Your task to perform on an android device: open app "ZOOM Cloud Meetings" (install if not already installed) and enter user name: "bauxite@icloud.com" and password: "dim" Image 0: 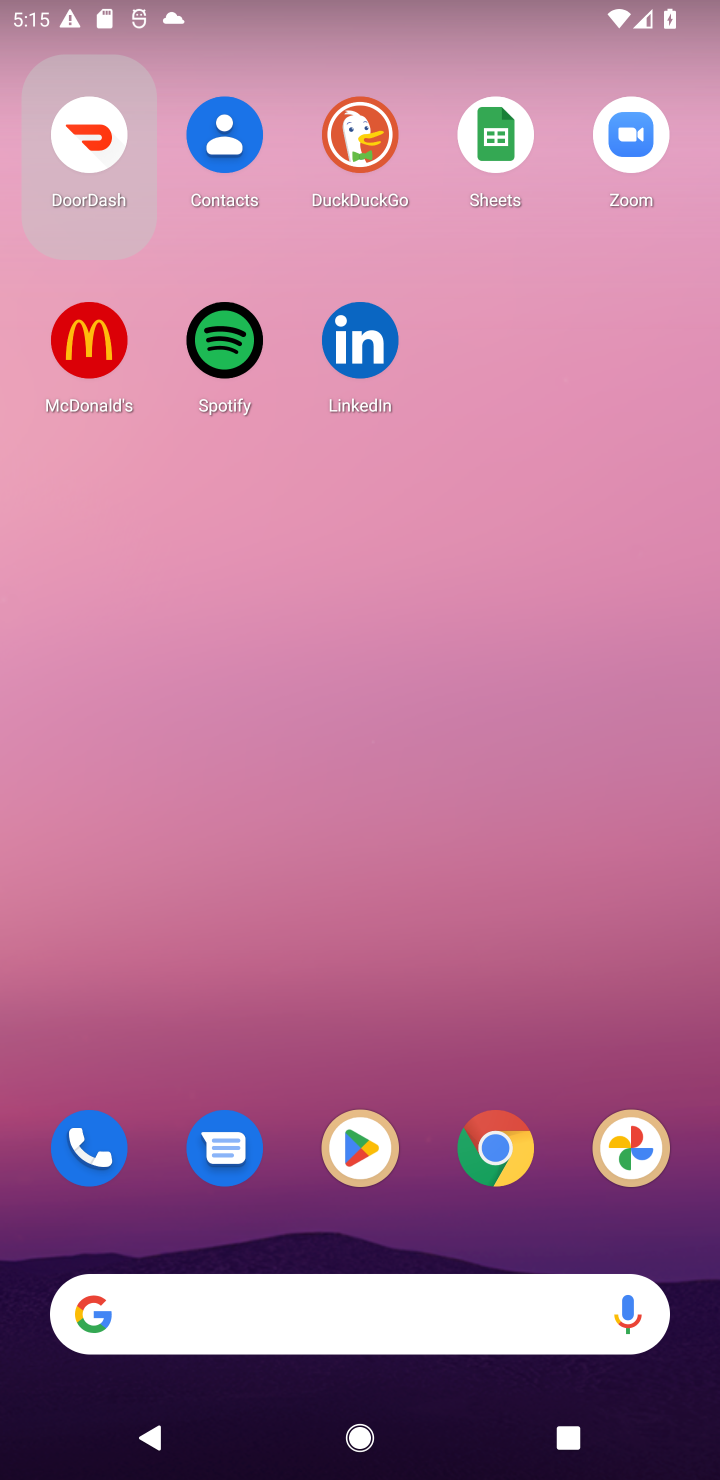
Step 0: drag from (470, 1102) to (408, 120)
Your task to perform on an android device: open app "ZOOM Cloud Meetings" (install if not already installed) and enter user name: "bauxite@icloud.com" and password: "dim" Image 1: 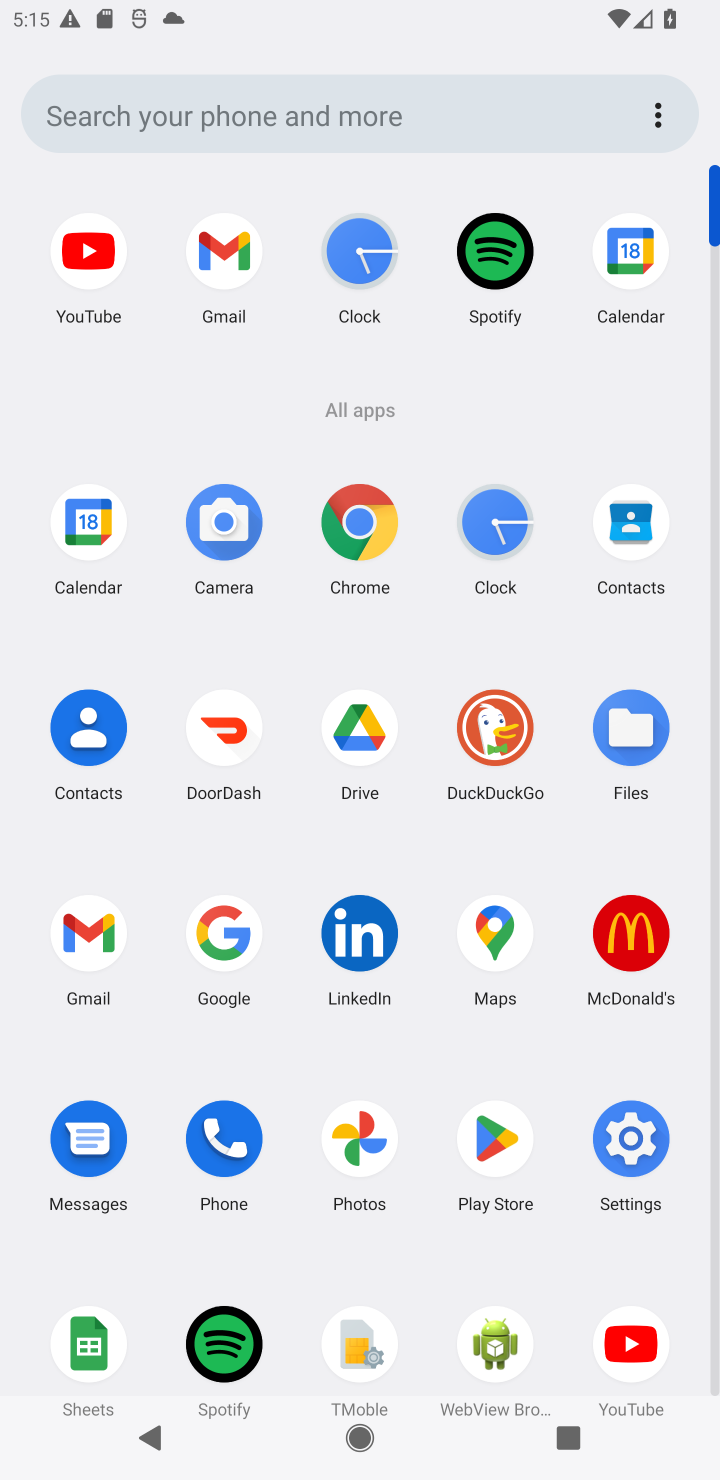
Step 1: click (512, 1130)
Your task to perform on an android device: open app "ZOOM Cloud Meetings" (install if not already installed) and enter user name: "bauxite@icloud.com" and password: "dim" Image 2: 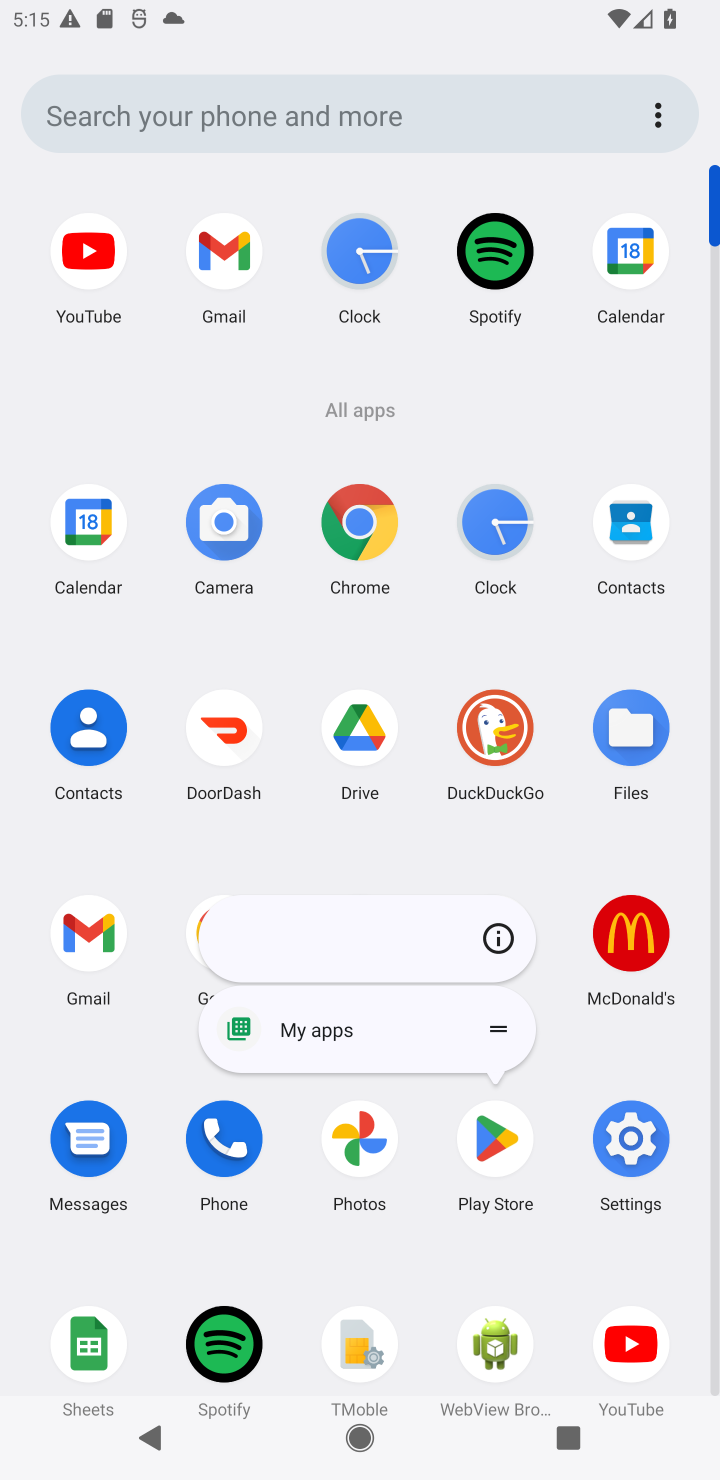
Step 2: click (512, 1128)
Your task to perform on an android device: open app "ZOOM Cloud Meetings" (install if not already installed) and enter user name: "bauxite@icloud.com" and password: "dim" Image 3: 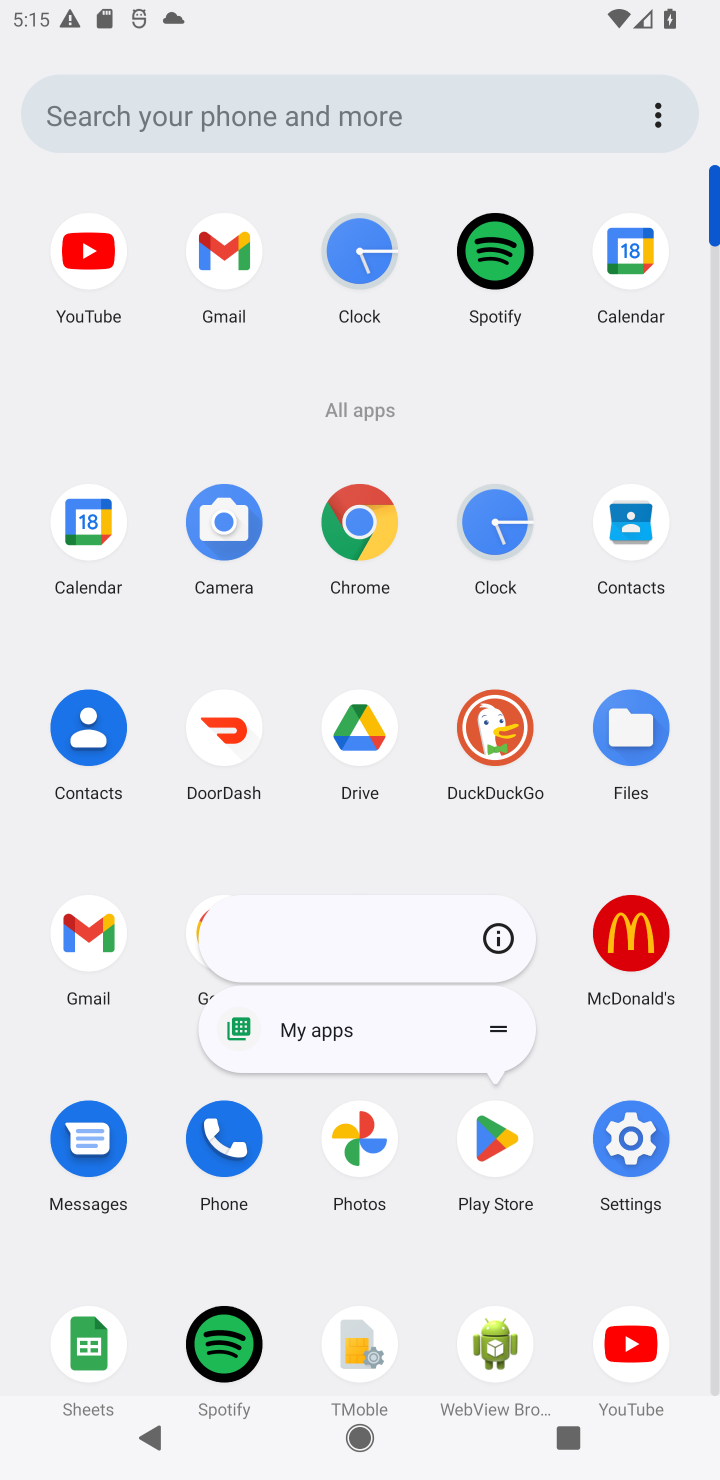
Step 3: click (494, 1143)
Your task to perform on an android device: open app "ZOOM Cloud Meetings" (install if not already installed) and enter user name: "bauxite@icloud.com" and password: "dim" Image 4: 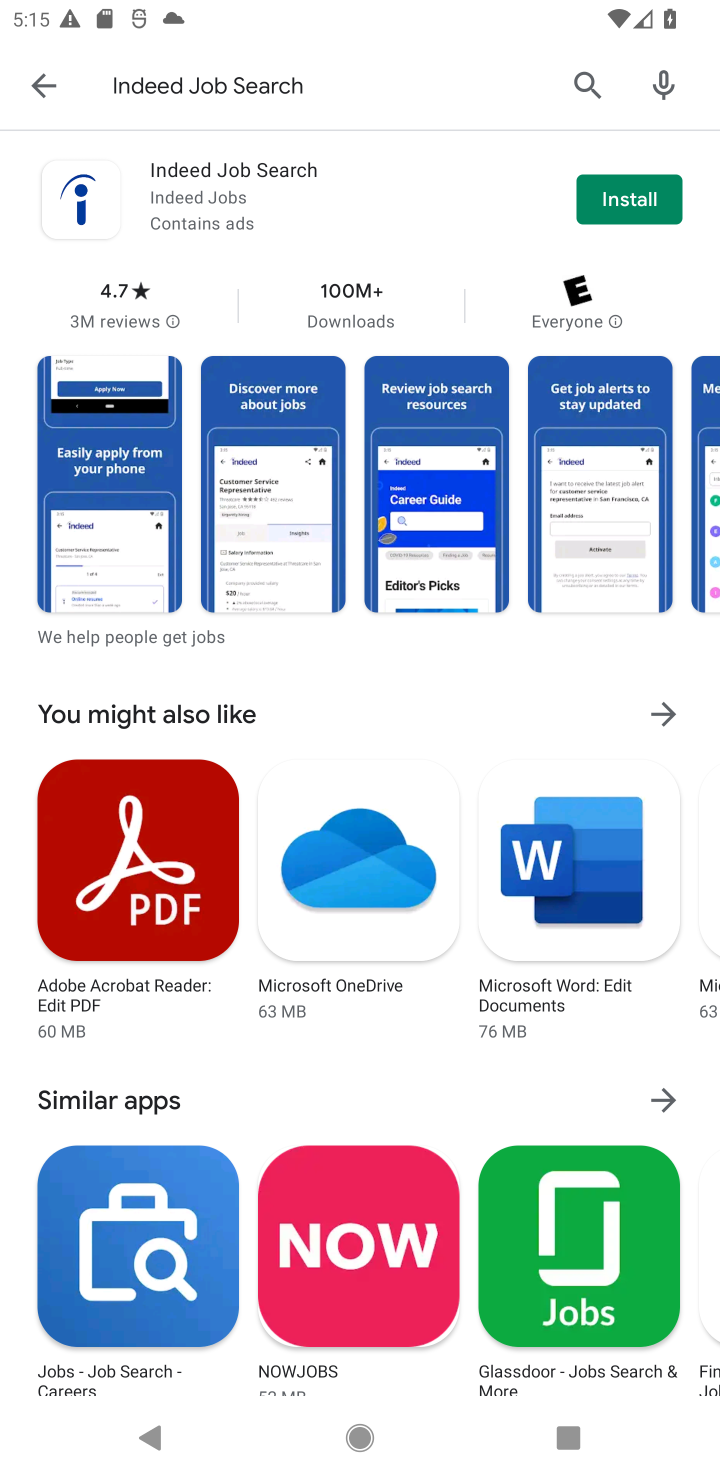
Step 4: press back button
Your task to perform on an android device: open app "ZOOM Cloud Meetings" (install if not already installed) and enter user name: "bauxite@icloud.com" and password: "dim" Image 5: 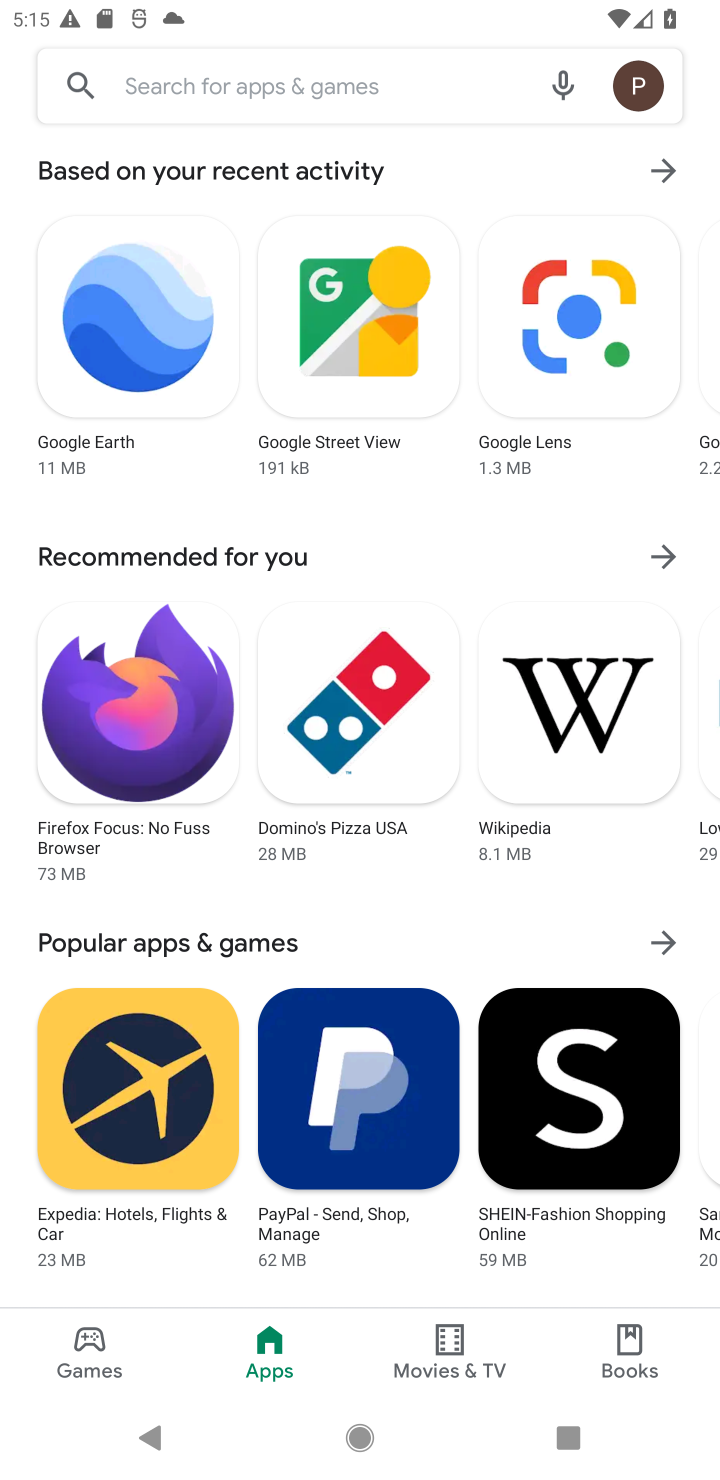
Step 5: click (354, 62)
Your task to perform on an android device: open app "ZOOM Cloud Meetings" (install if not already installed) and enter user name: "bauxite@icloud.com" and password: "dim" Image 6: 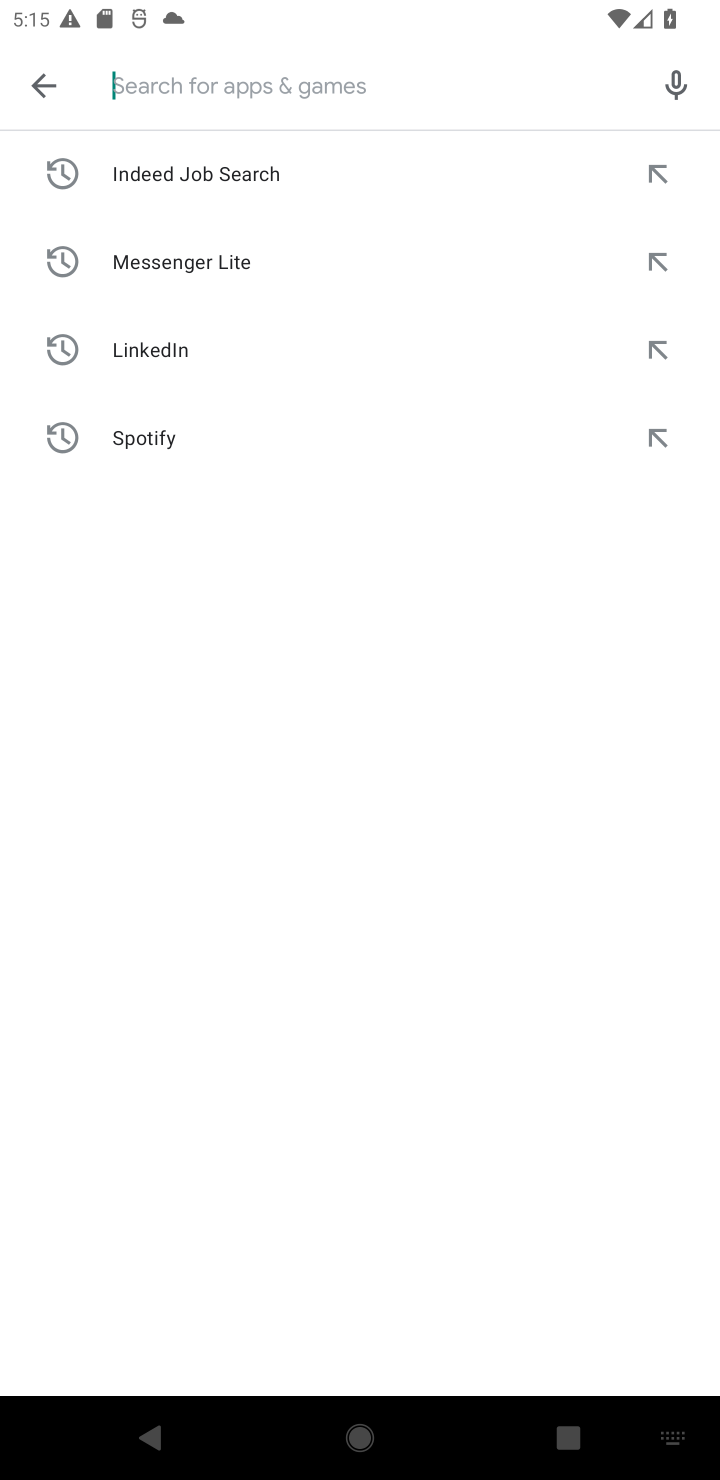
Step 6: type "ZOOM Cloud Meetings"
Your task to perform on an android device: open app "ZOOM Cloud Meetings" (install if not already installed) and enter user name: "bauxite@icloud.com" and password: "dim" Image 7: 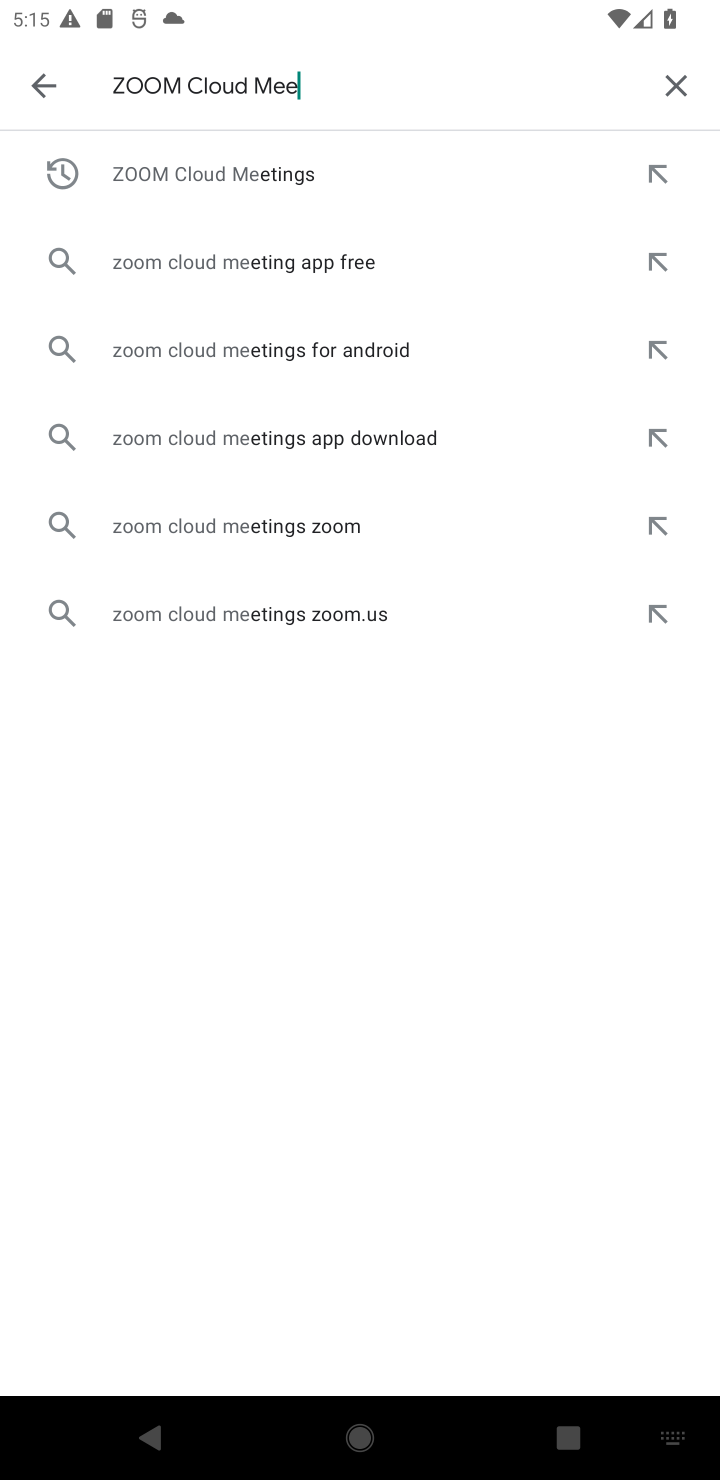
Step 7: press enter
Your task to perform on an android device: open app "ZOOM Cloud Meetings" (install if not already installed) and enter user name: "bauxite@icloud.com" and password: "dim" Image 8: 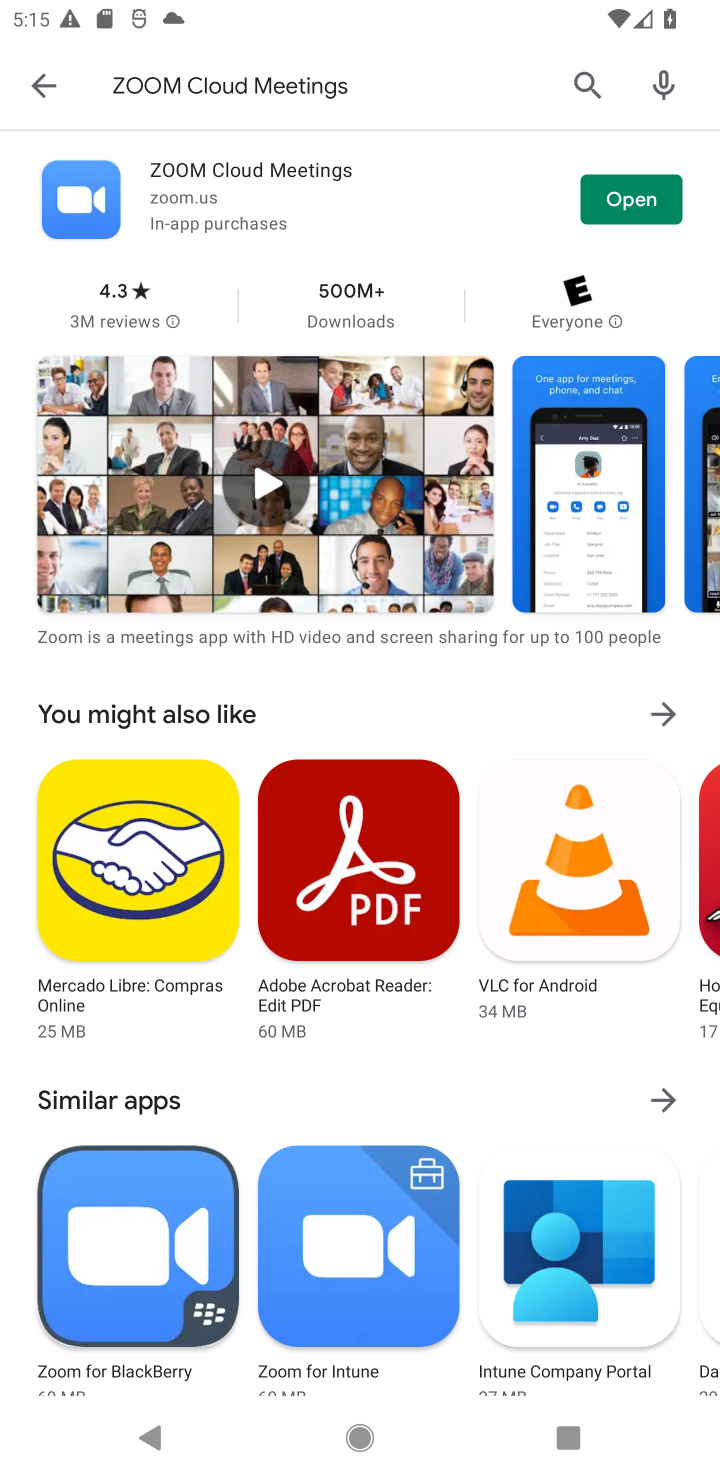
Step 8: click (634, 197)
Your task to perform on an android device: open app "ZOOM Cloud Meetings" (install if not already installed) and enter user name: "bauxite@icloud.com" and password: "dim" Image 9: 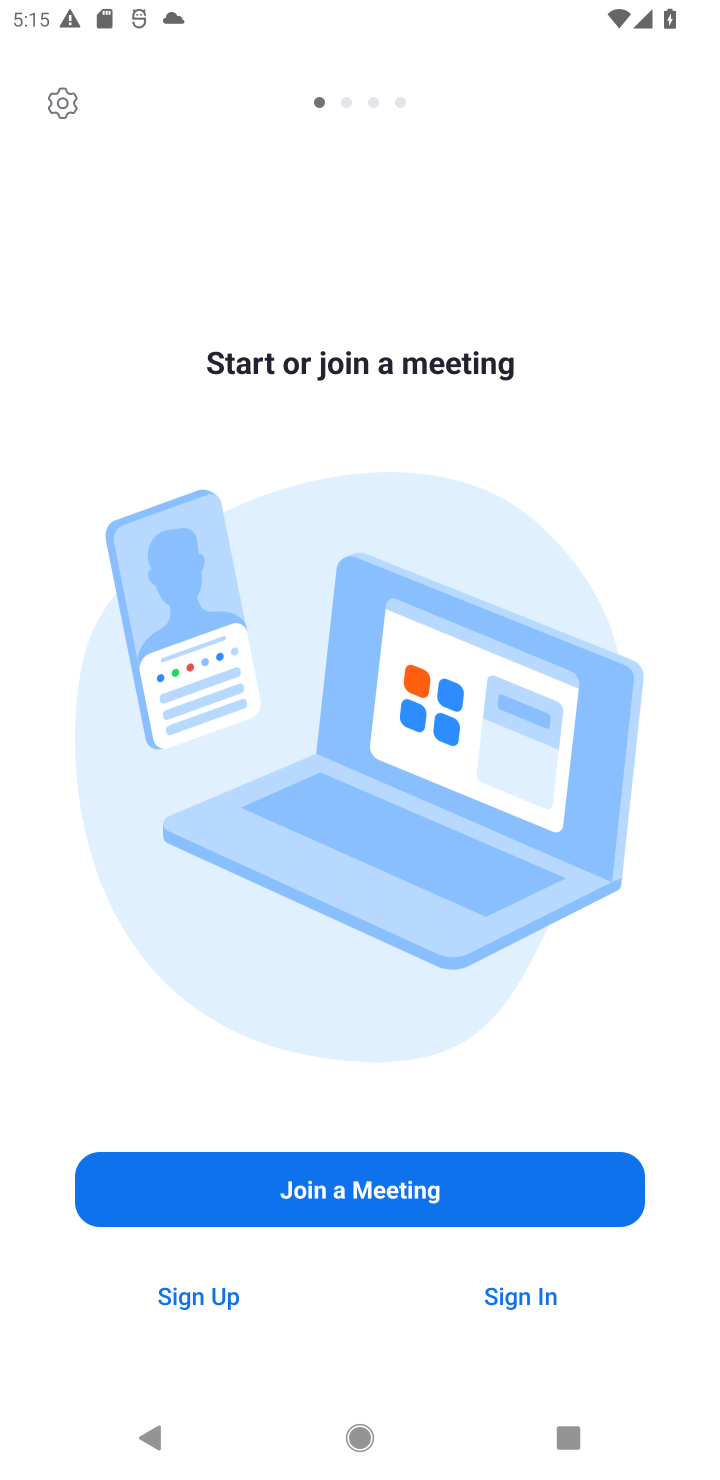
Step 9: click (188, 1302)
Your task to perform on an android device: open app "ZOOM Cloud Meetings" (install if not already installed) and enter user name: "bauxite@icloud.com" and password: "dim" Image 10: 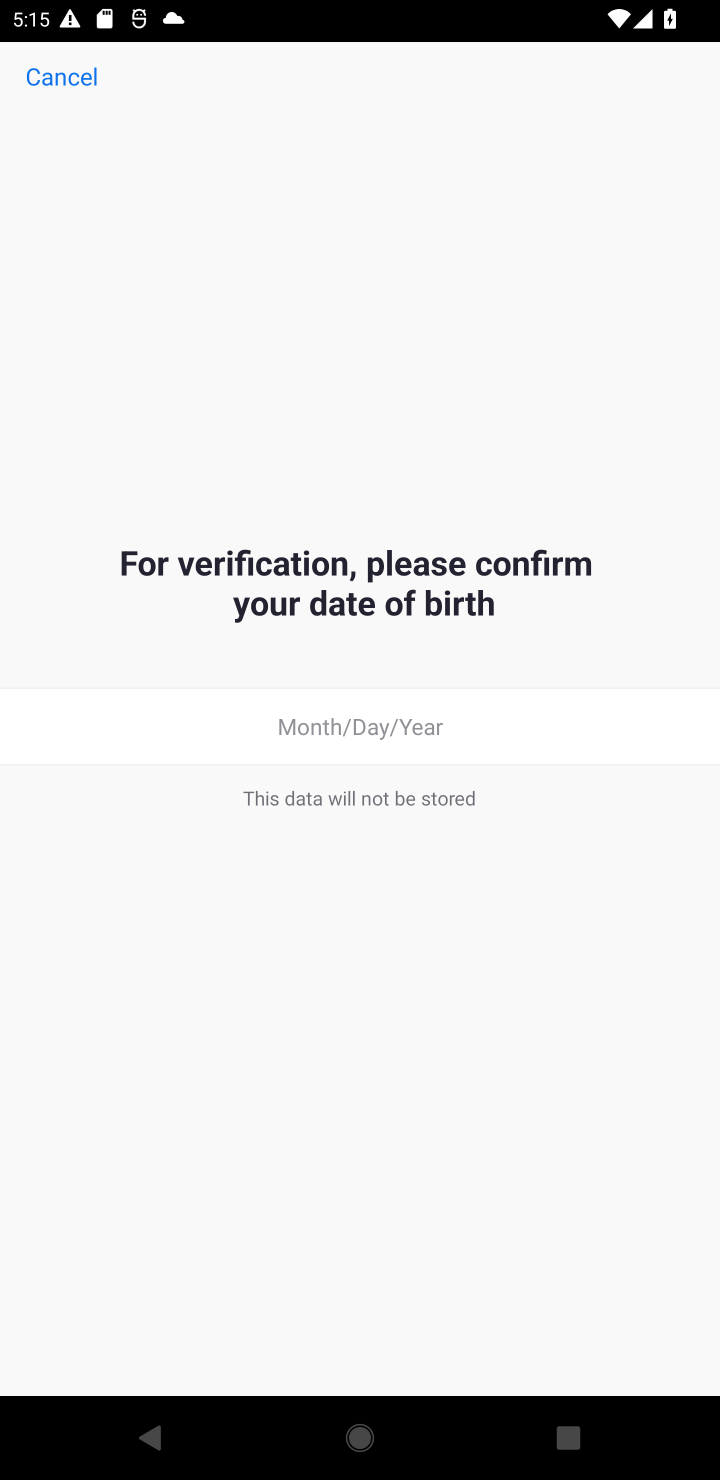
Step 10: click (343, 742)
Your task to perform on an android device: open app "ZOOM Cloud Meetings" (install if not already installed) and enter user name: "bauxite@icloud.com" and password: "dim" Image 11: 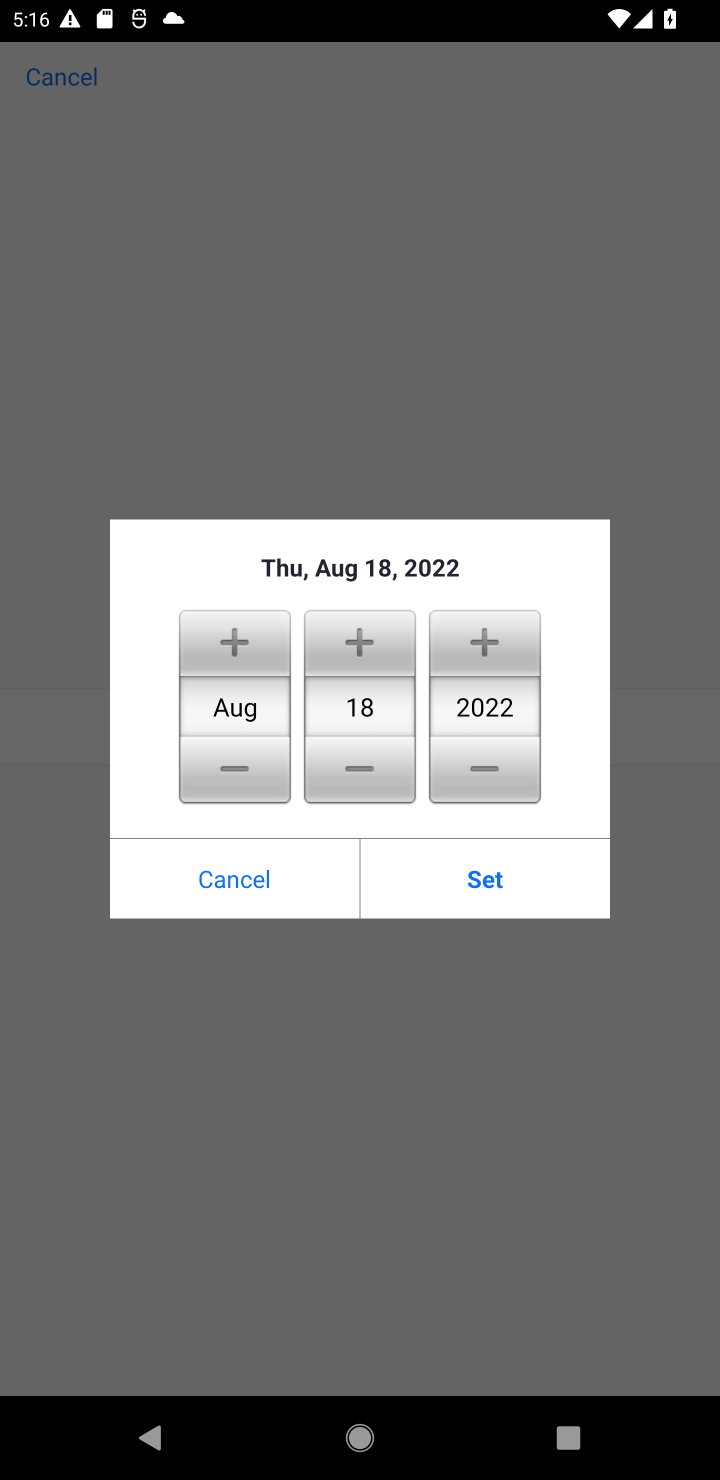
Step 11: task complete